Your task to perform on an android device: create a new album in the google photos Image 0: 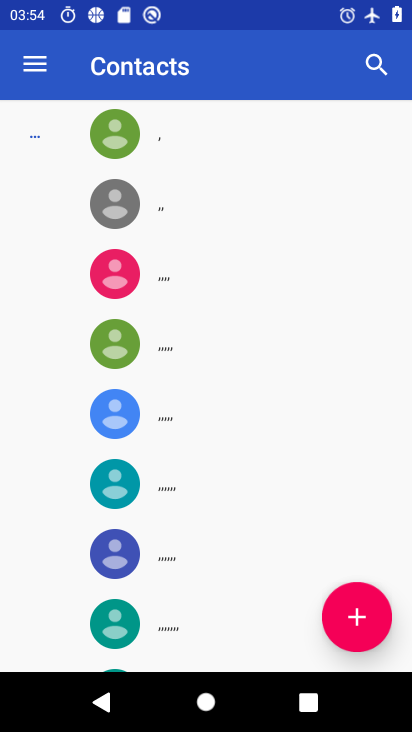
Step 0: press back button
Your task to perform on an android device: create a new album in the google photos Image 1: 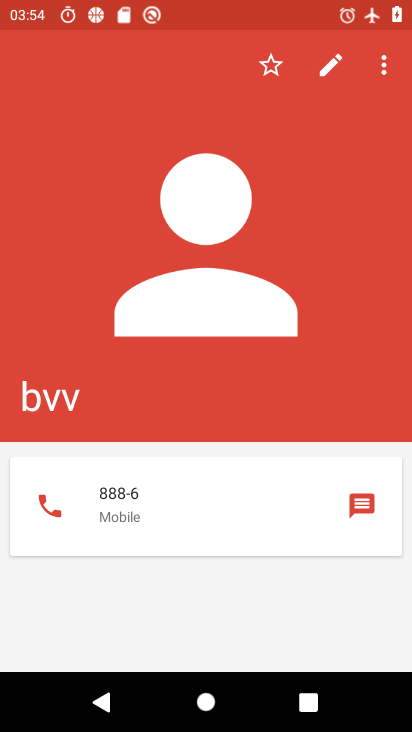
Step 1: press home button
Your task to perform on an android device: create a new album in the google photos Image 2: 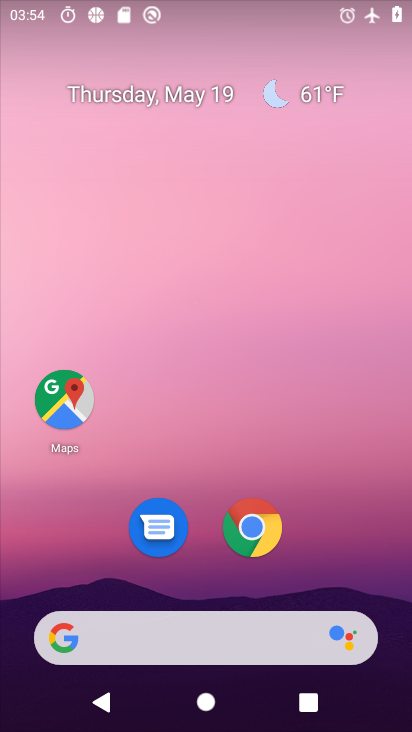
Step 2: drag from (242, 604) to (292, 88)
Your task to perform on an android device: create a new album in the google photos Image 3: 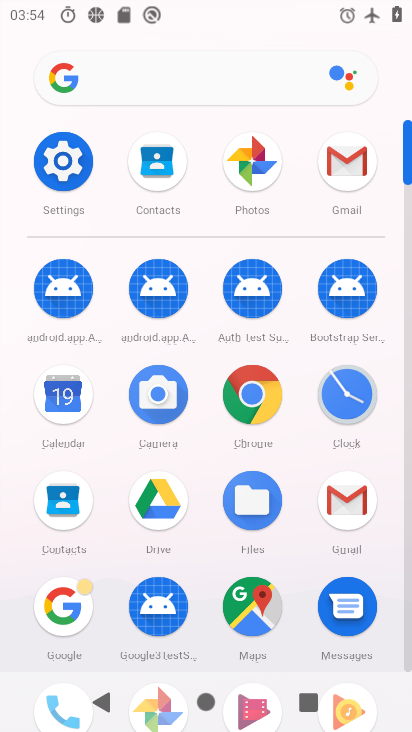
Step 3: drag from (201, 595) to (264, 203)
Your task to perform on an android device: create a new album in the google photos Image 4: 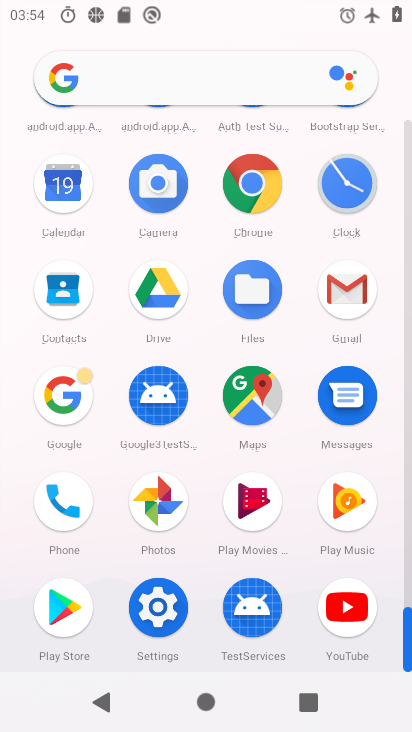
Step 4: click (153, 512)
Your task to perform on an android device: create a new album in the google photos Image 5: 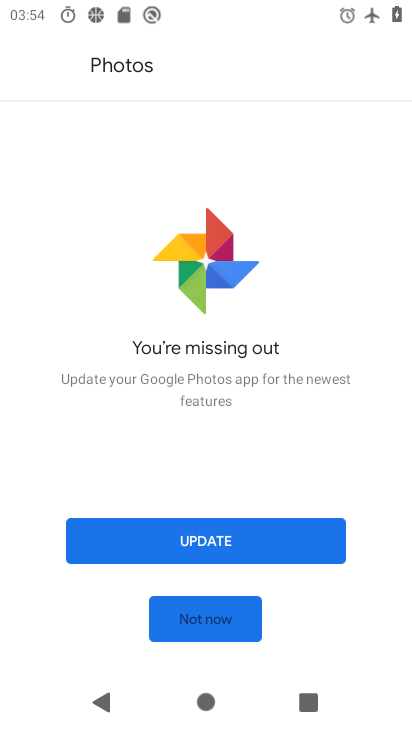
Step 5: click (241, 610)
Your task to perform on an android device: create a new album in the google photos Image 6: 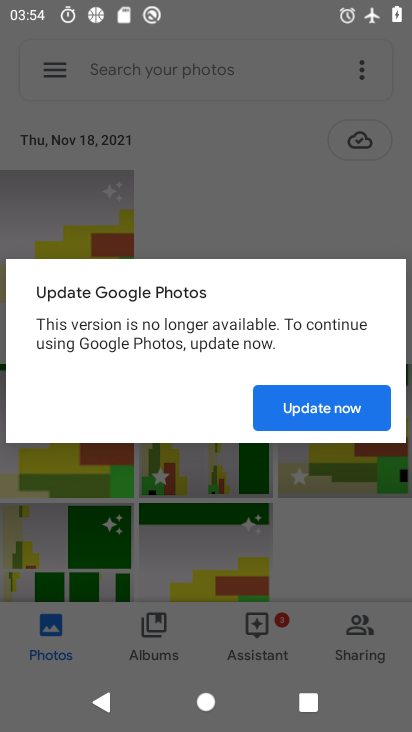
Step 6: click (308, 413)
Your task to perform on an android device: create a new album in the google photos Image 7: 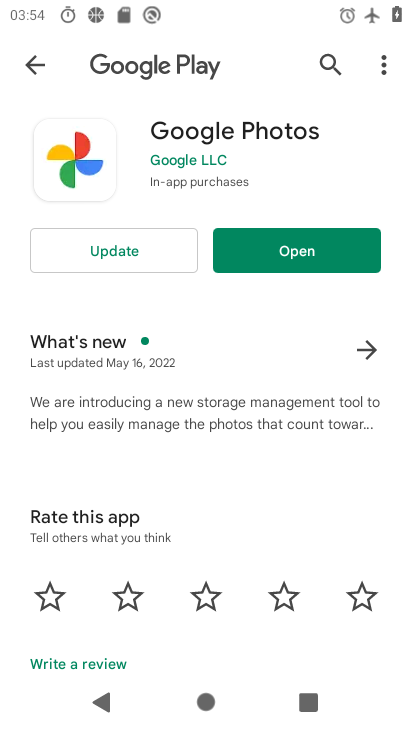
Step 7: click (331, 257)
Your task to perform on an android device: create a new album in the google photos Image 8: 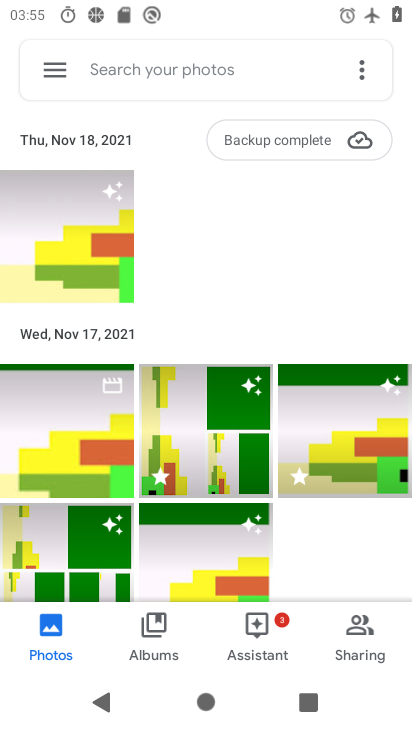
Step 8: click (144, 641)
Your task to perform on an android device: create a new album in the google photos Image 9: 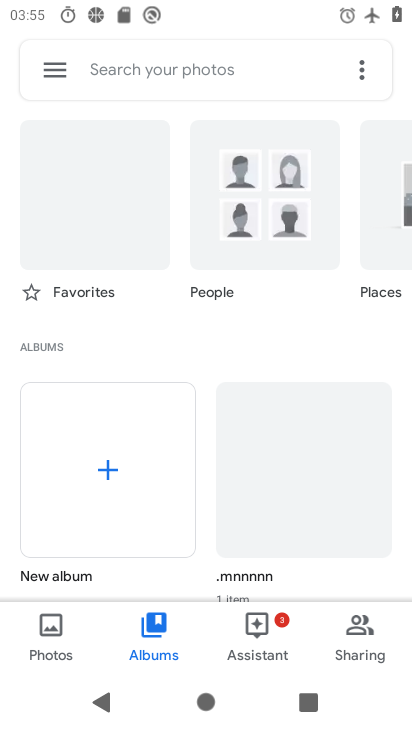
Step 9: click (364, 64)
Your task to perform on an android device: create a new album in the google photos Image 10: 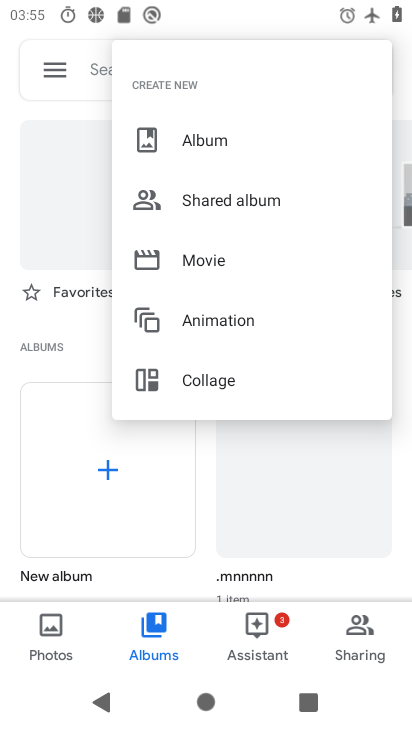
Step 10: click (224, 134)
Your task to perform on an android device: create a new album in the google photos Image 11: 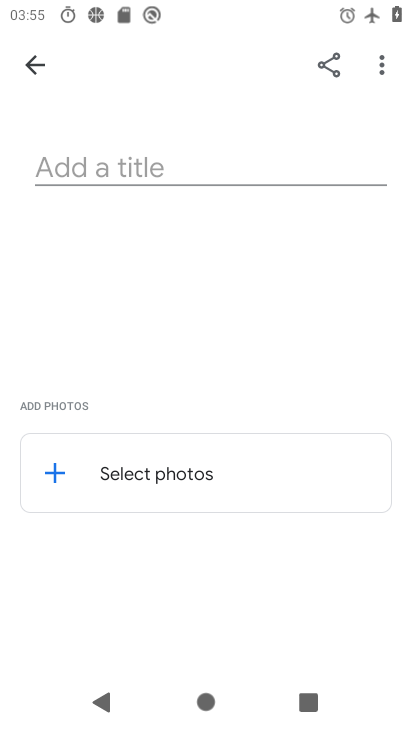
Step 11: click (103, 161)
Your task to perform on an android device: create a new album in the google photos Image 12: 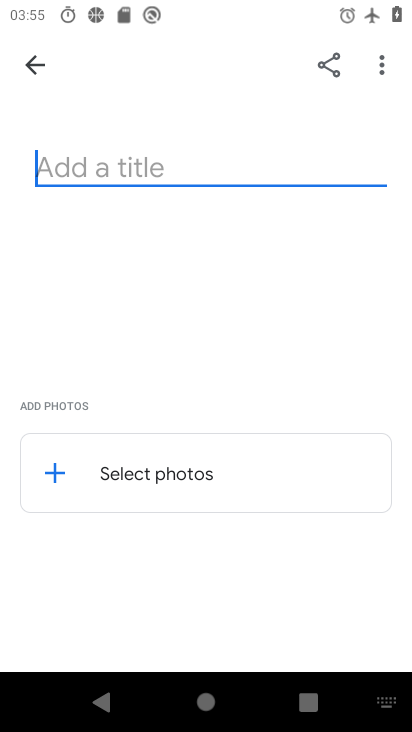
Step 12: type "bhhv"
Your task to perform on an android device: create a new album in the google photos Image 13: 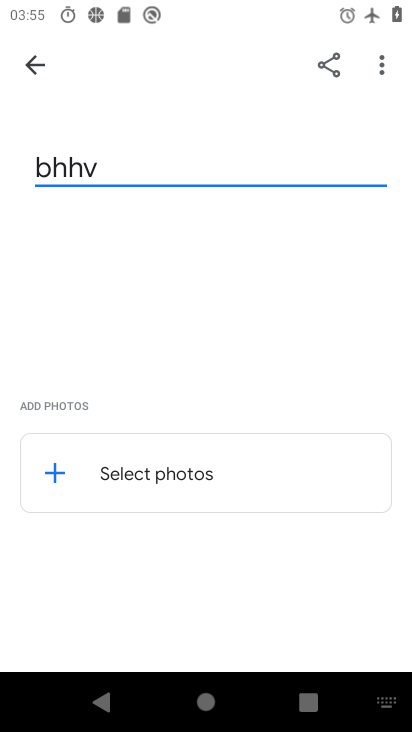
Step 13: click (179, 485)
Your task to perform on an android device: create a new album in the google photos Image 14: 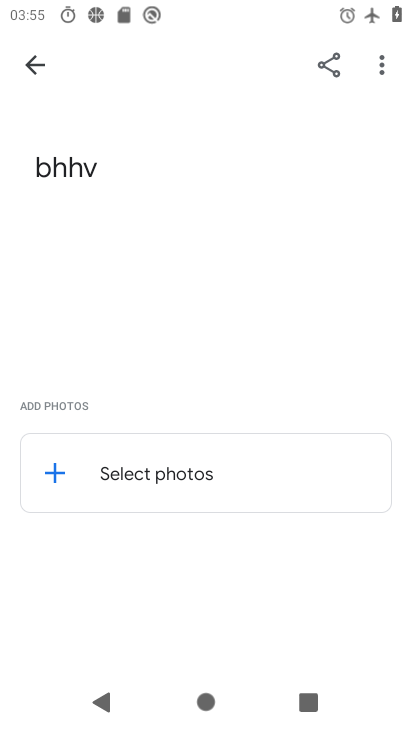
Step 14: type "78686"
Your task to perform on an android device: create a new album in the google photos Image 15: 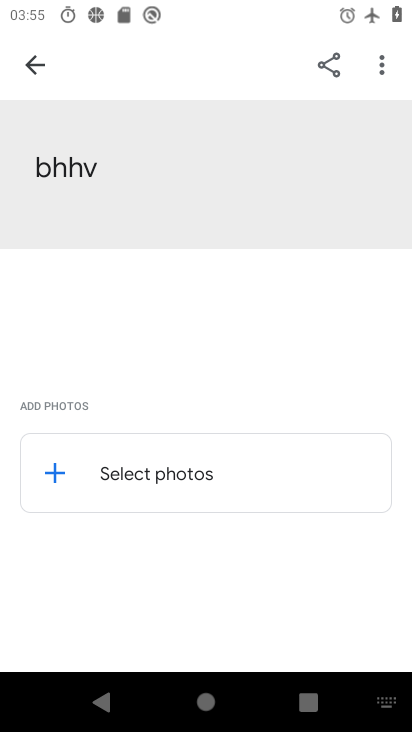
Step 15: click (177, 481)
Your task to perform on an android device: create a new album in the google photos Image 16: 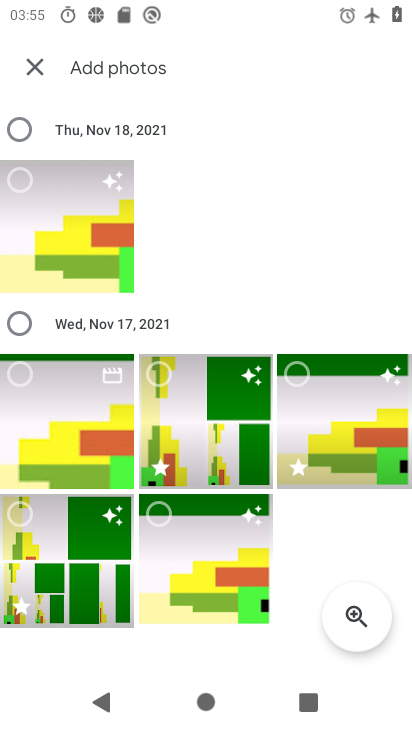
Step 16: click (12, 136)
Your task to perform on an android device: create a new album in the google photos Image 17: 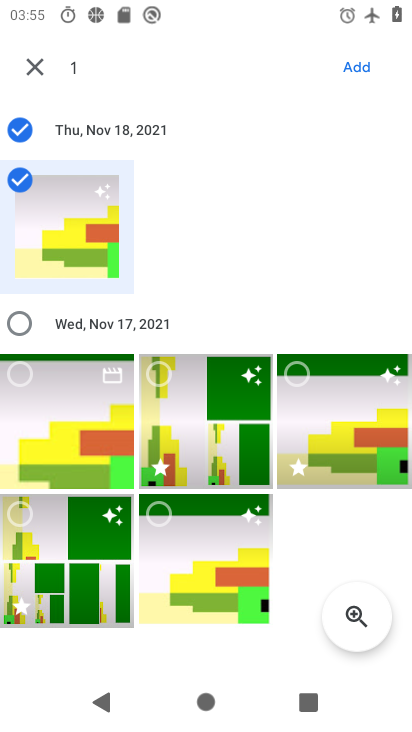
Step 17: click (19, 317)
Your task to perform on an android device: create a new album in the google photos Image 18: 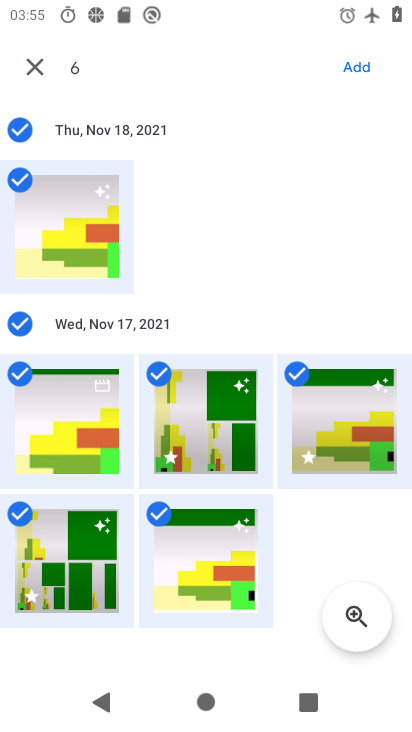
Step 18: click (360, 75)
Your task to perform on an android device: create a new album in the google photos Image 19: 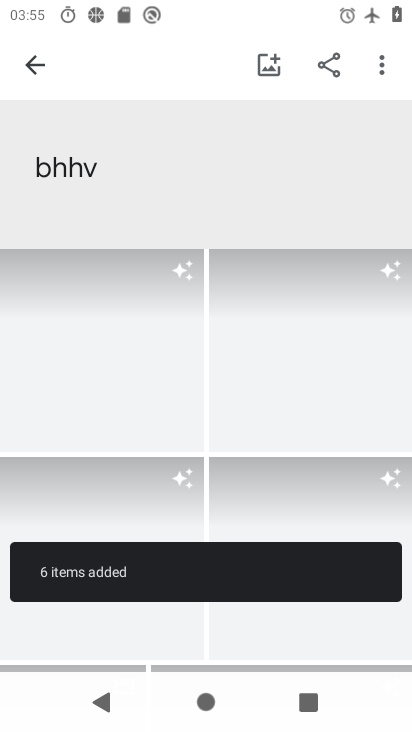
Step 19: task complete